Your task to perform on an android device: allow notifications from all sites in the chrome app Image 0: 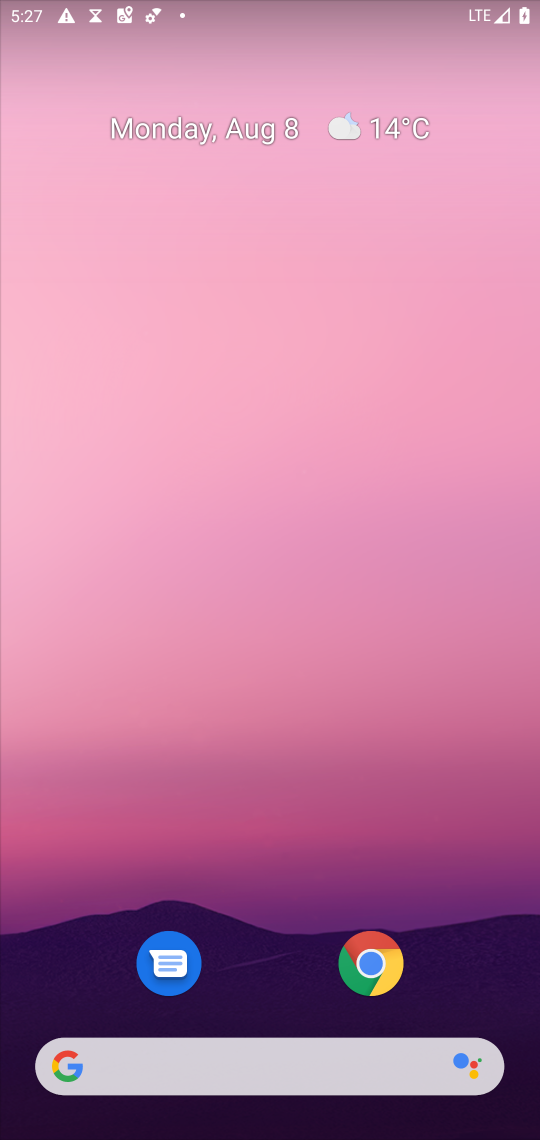
Step 0: click (359, 952)
Your task to perform on an android device: allow notifications from all sites in the chrome app Image 1: 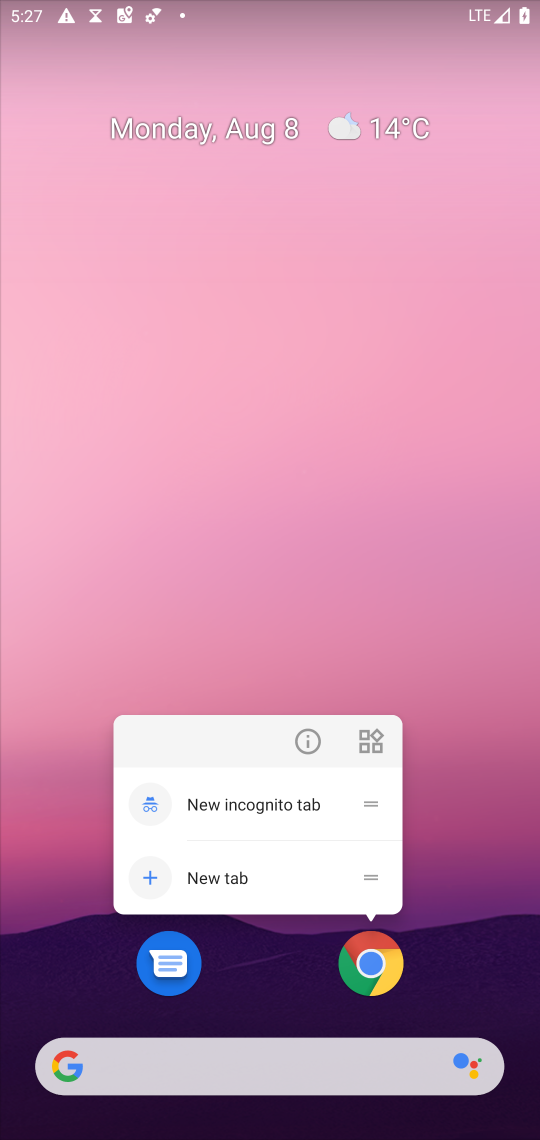
Step 1: click (369, 968)
Your task to perform on an android device: allow notifications from all sites in the chrome app Image 2: 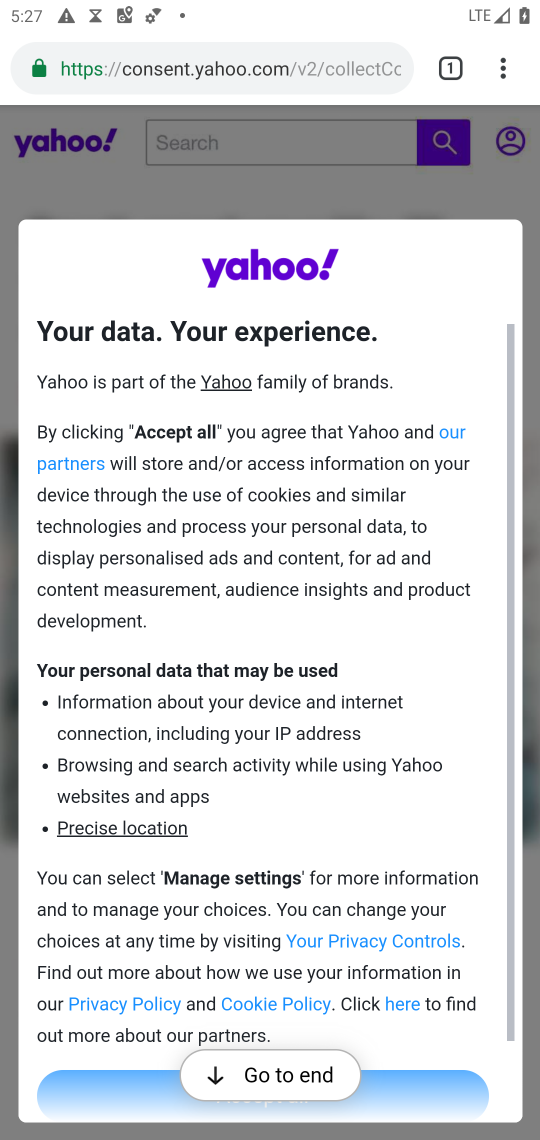
Step 2: click (513, 73)
Your task to perform on an android device: allow notifications from all sites in the chrome app Image 3: 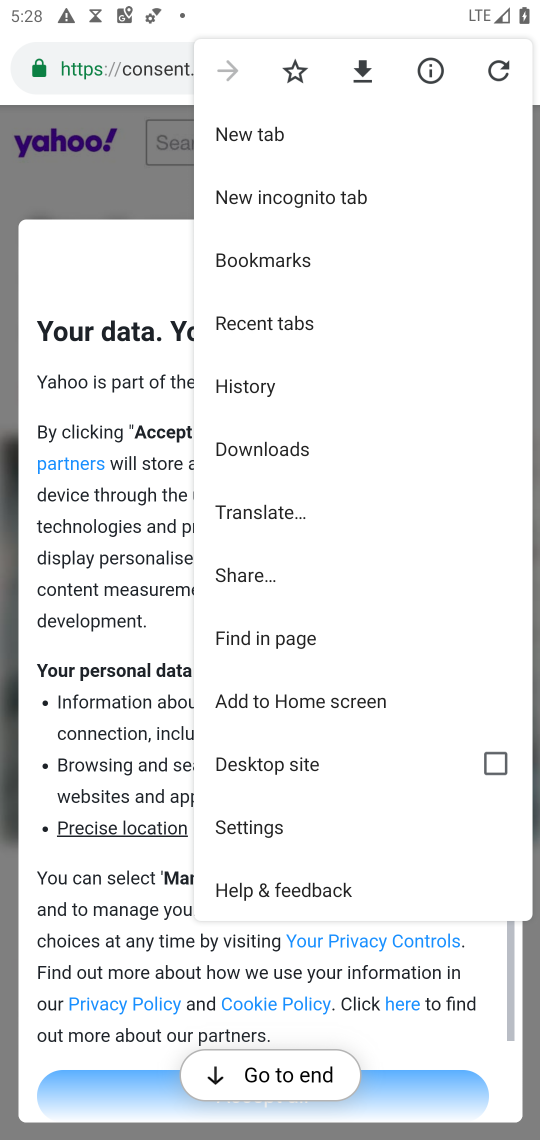
Step 3: click (280, 827)
Your task to perform on an android device: allow notifications from all sites in the chrome app Image 4: 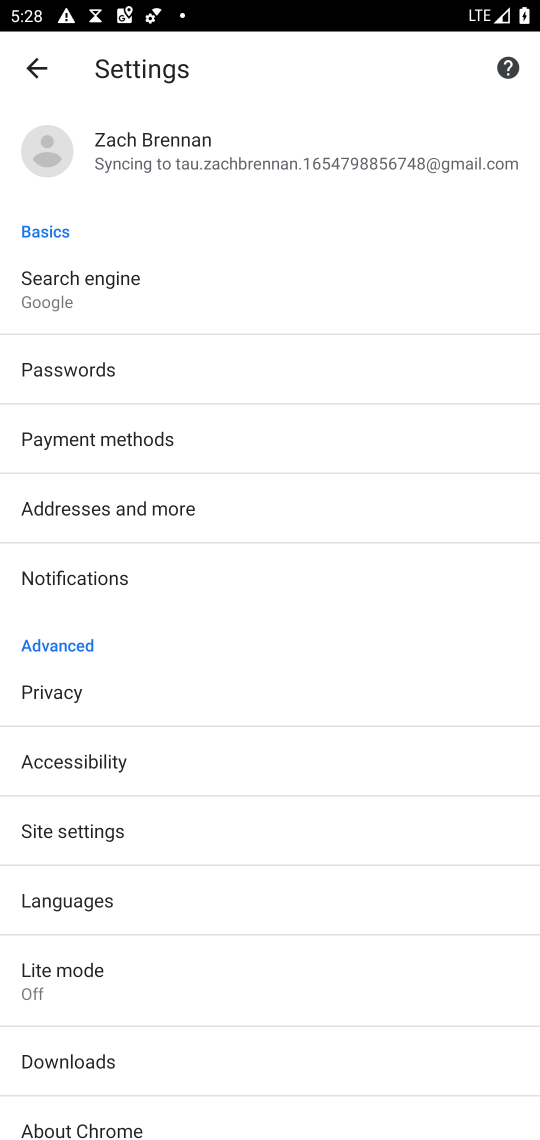
Step 4: click (214, 594)
Your task to perform on an android device: allow notifications from all sites in the chrome app Image 5: 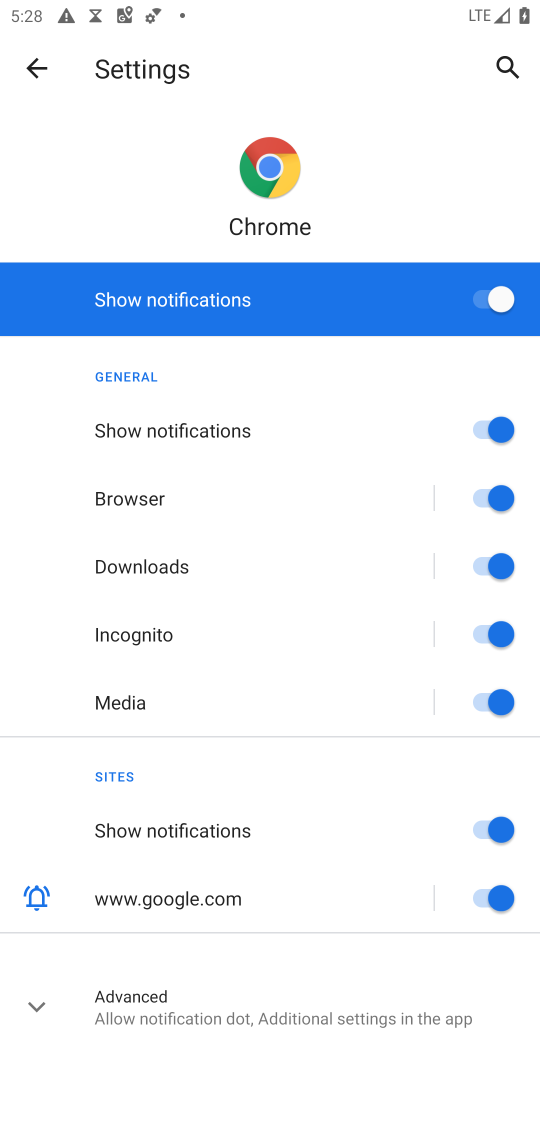
Step 5: task complete